Your task to perform on an android device: open a bookmark in the chrome app Image 0: 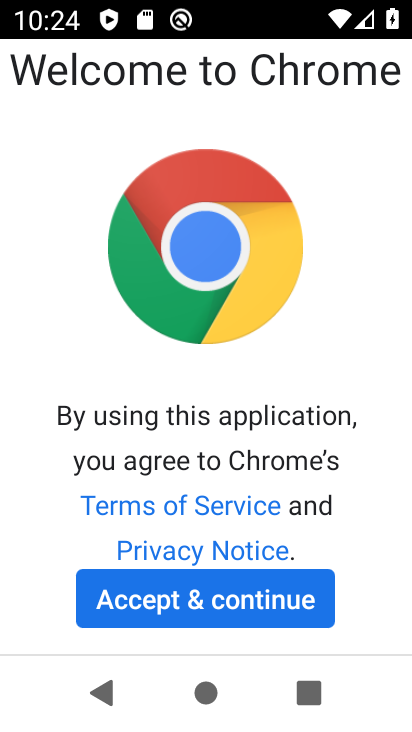
Step 0: press home button
Your task to perform on an android device: open a bookmark in the chrome app Image 1: 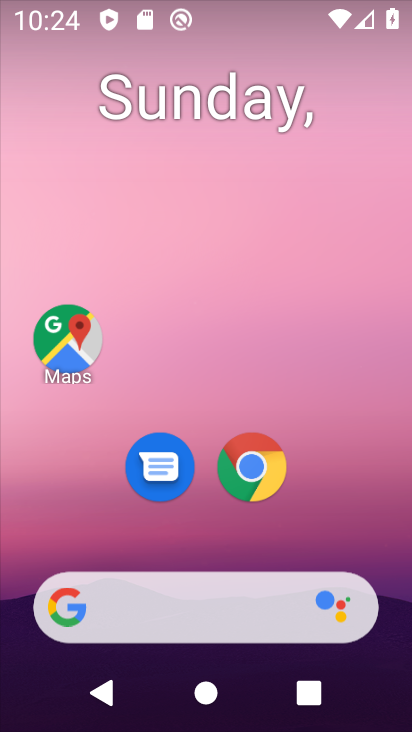
Step 1: click (249, 471)
Your task to perform on an android device: open a bookmark in the chrome app Image 2: 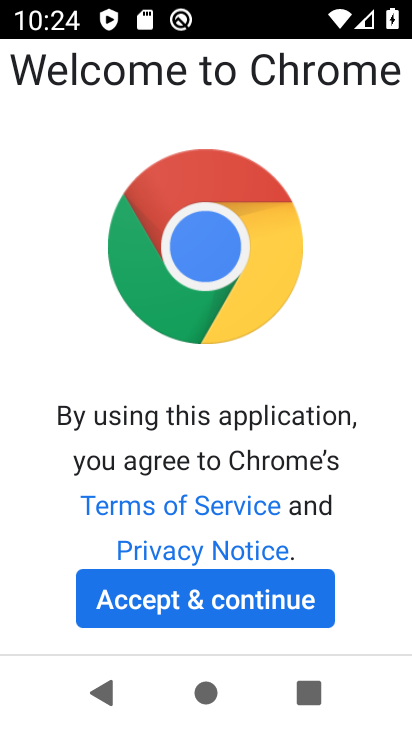
Step 2: click (215, 585)
Your task to perform on an android device: open a bookmark in the chrome app Image 3: 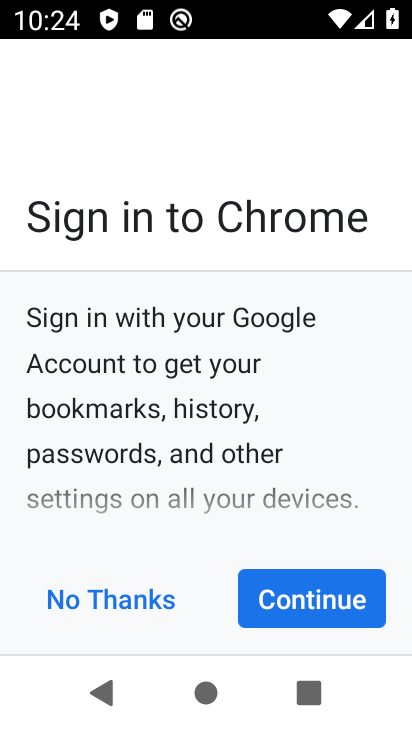
Step 3: click (280, 579)
Your task to perform on an android device: open a bookmark in the chrome app Image 4: 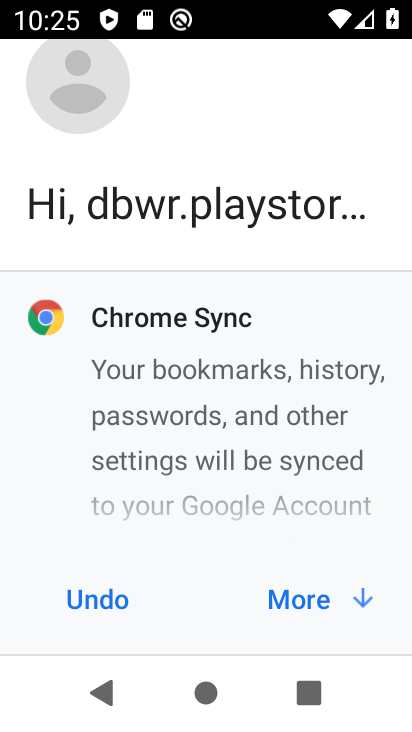
Step 4: click (280, 579)
Your task to perform on an android device: open a bookmark in the chrome app Image 5: 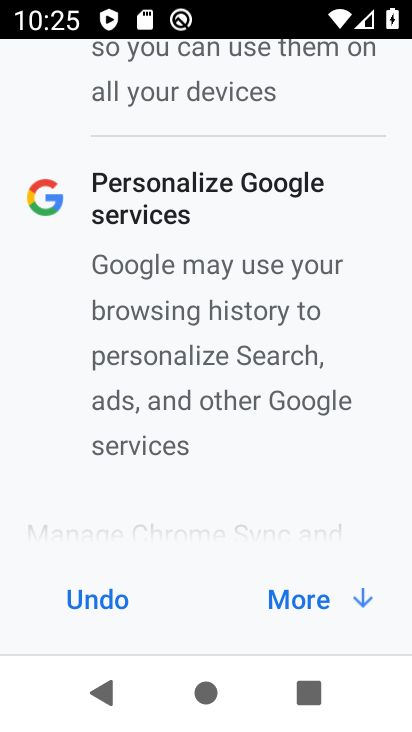
Step 5: click (280, 579)
Your task to perform on an android device: open a bookmark in the chrome app Image 6: 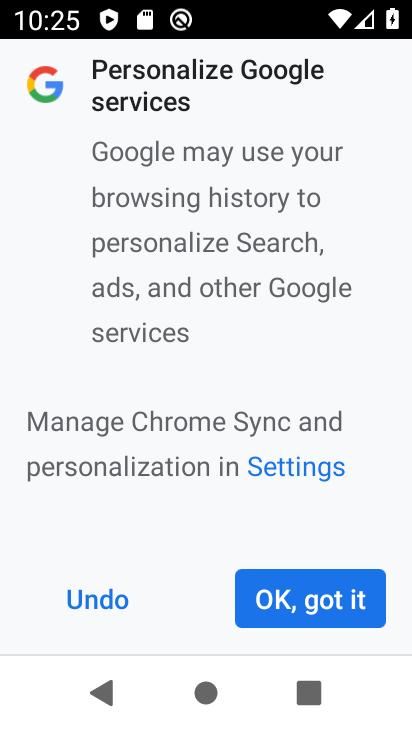
Step 6: click (280, 579)
Your task to perform on an android device: open a bookmark in the chrome app Image 7: 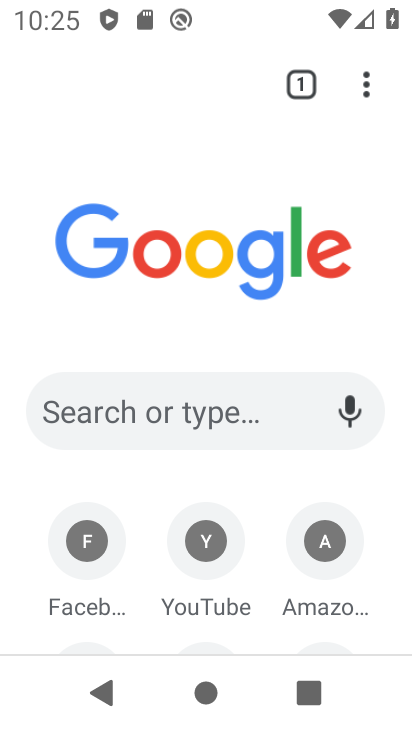
Step 7: drag from (368, 90) to (177, 336)
Your task to perform on an android device: open a bookmark in the chrome app Image 8: 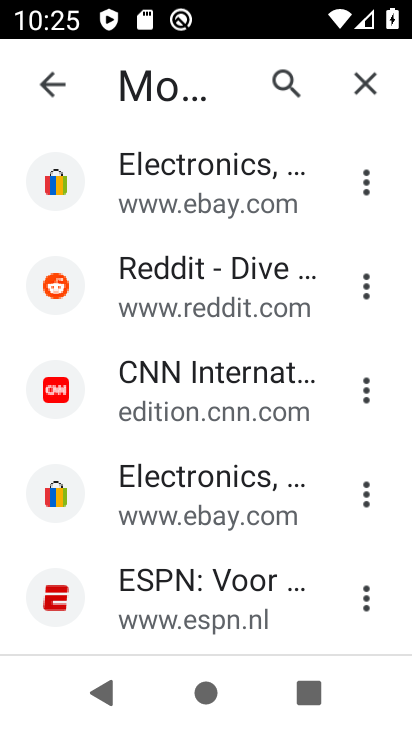
Step 8: click (207, 272)
Your task to perform on an android device: open a bookmark in the chrome app Image 9: 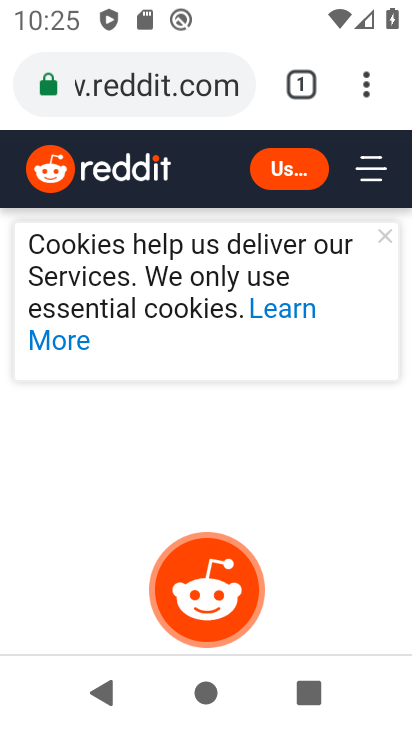
Step 9: task complete